Your task to perform on an android device: Open calendar and show me the second week of next month Image 0: 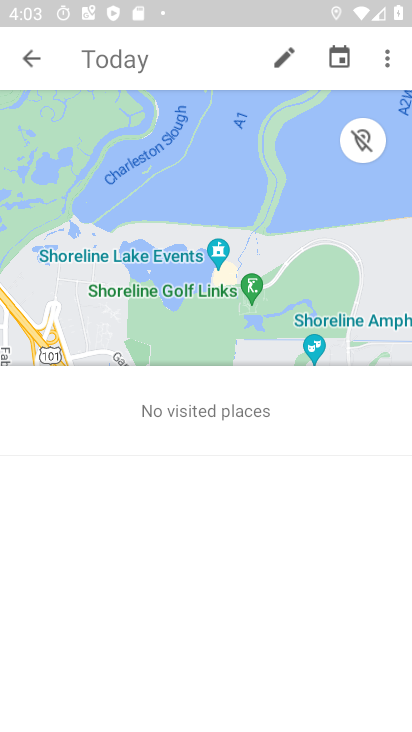
Step 0: press back button
Your task to perform on an android device: Open calendar and show me the second week of next month Image 1: 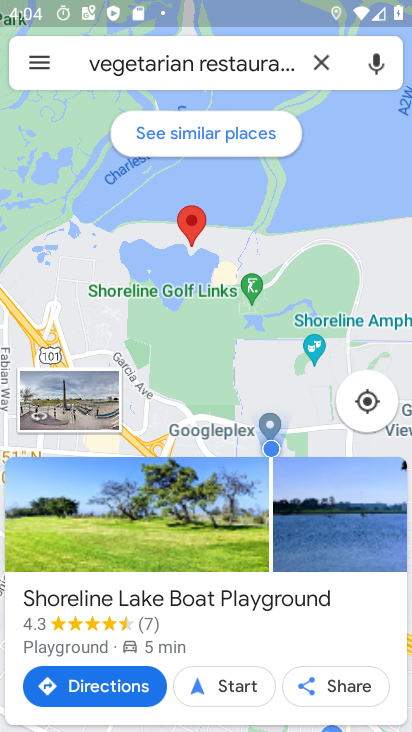
Step 1: press home button
Your task to perform on an android device: Open calendar and show me the second week of next month Image 2: 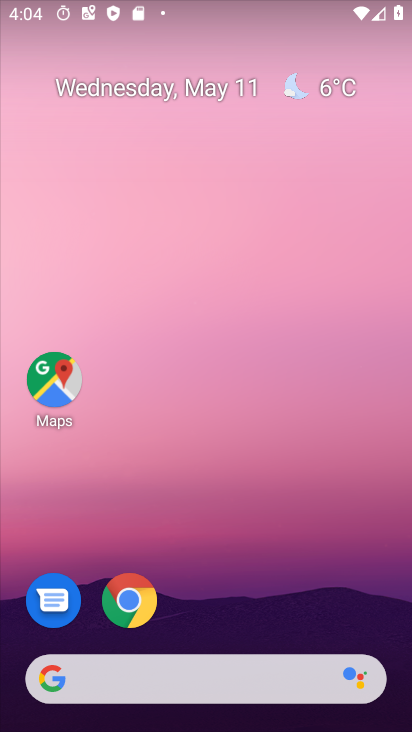
Step 2: drag from (299, 671) to (189, 278)
Your task to perform on an android device: Open calendar and show me the second week of next month Image 3: 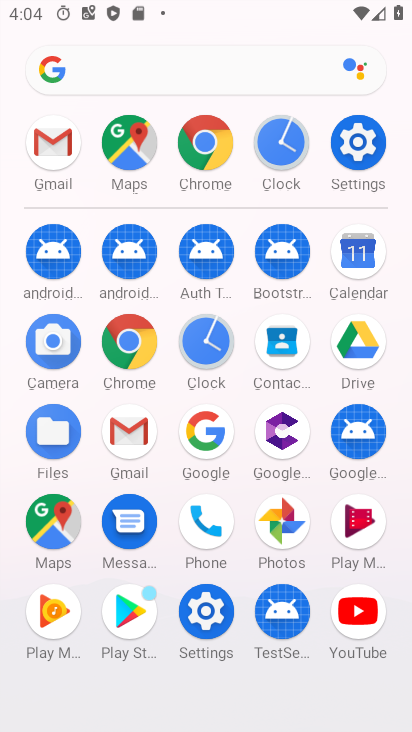
Step 3: click (365, 260)
Your task to perform on an android device: Open calendar and show me the second week of next month Image 4: 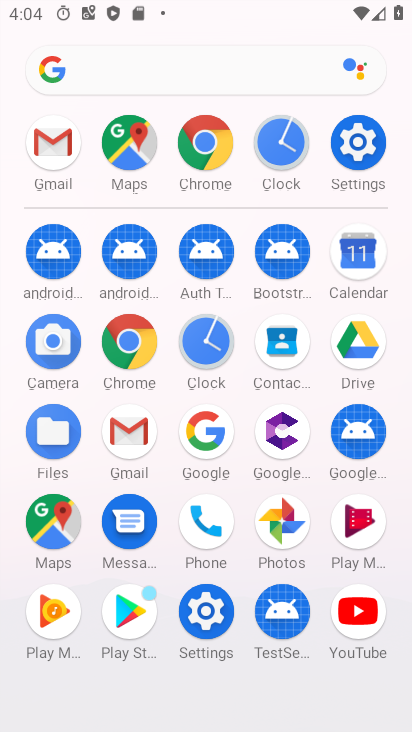
Step 4: click (365, 260)
Your task to perform on an android device: Open calendar and show me the second week of next month Image 5: 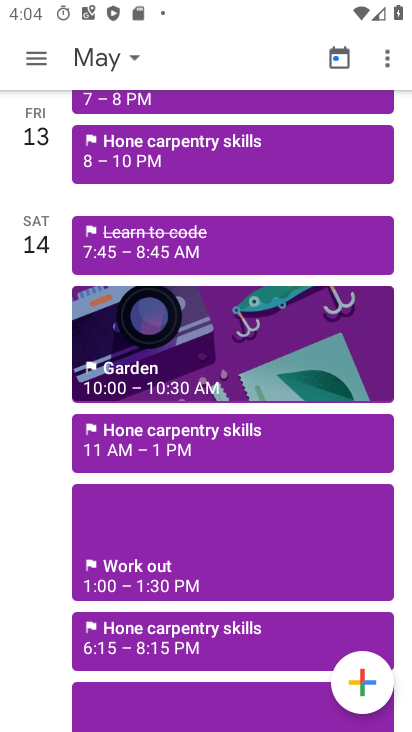
Step 5: click (125, 56)
Your task to perform on an android device: Open calendar and show me the second week of next month Image 6: 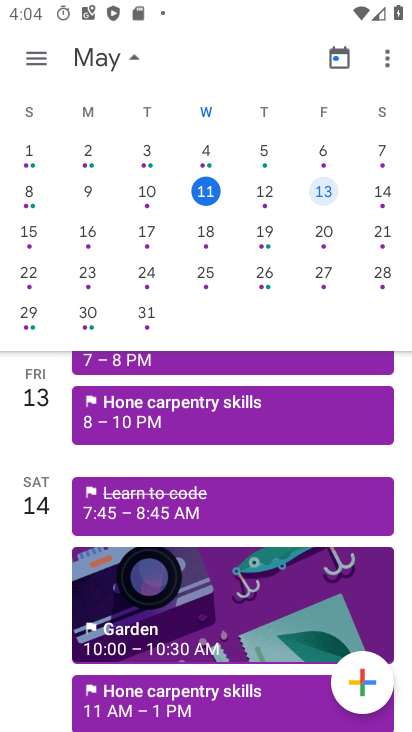
Step 6: drag from (336, 203) to (0, 278)
Your task to perform on an android device: Open calendar and show me the second week of next month Image 7: 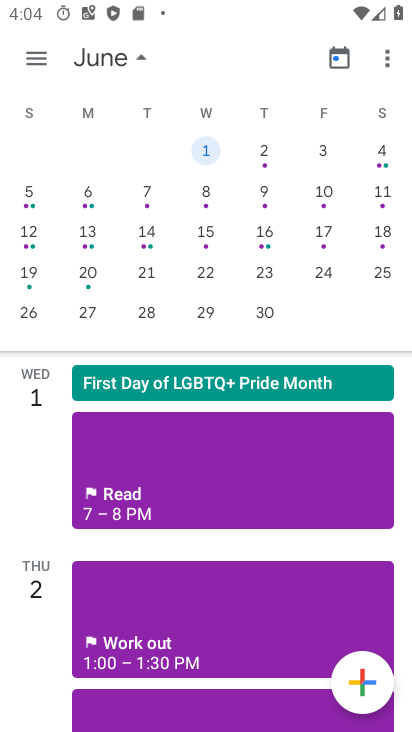
Step 7: click (206, 198)
Your task to perform on an android device: Open calendar and show me the second week of next month Image 8: 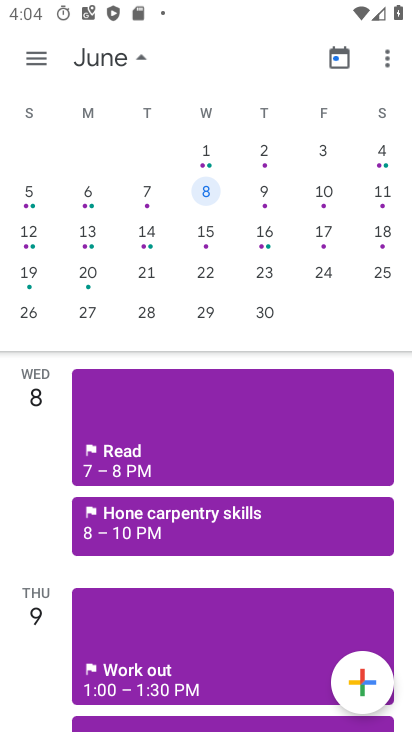
Step 8: click (208, 196)
Your task to perform on an android device: Open calendar and show me the second week of next month Image 9: 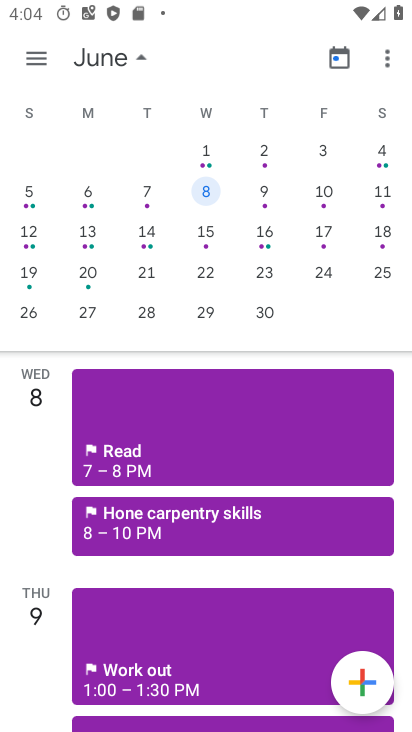
Step 9: task complete